Your task to perform on an android device: Show me recent news Image 0: 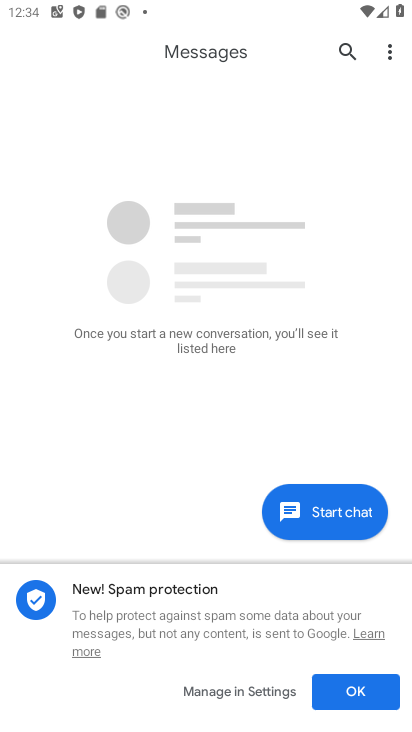
Step 0: press home button
Your task to perform on an android device: Show me recent news Image 1: 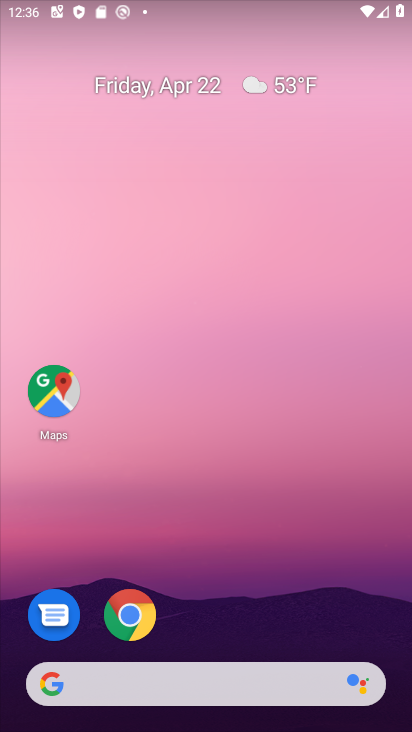
Step 1: click (215, 686)
Your task to perform on an android device: Show me recent news Image 2: 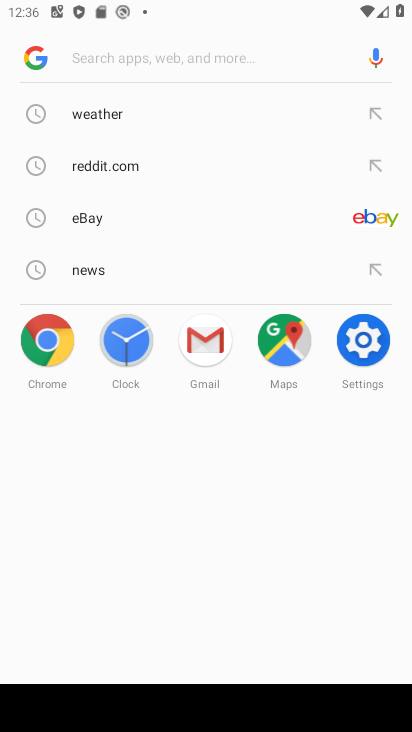
Step 2: type "recent news"
Your task to perform on an android device: Show me recent news Image 3: 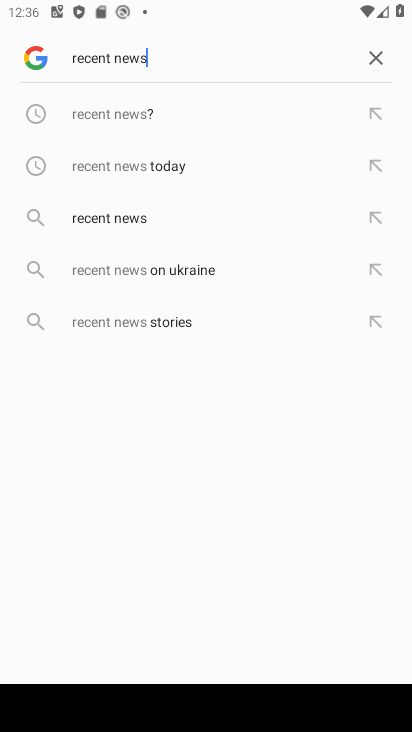
Step 3: click (230, 116)
Your task to perform on an android device: Show me recent news Image 4: 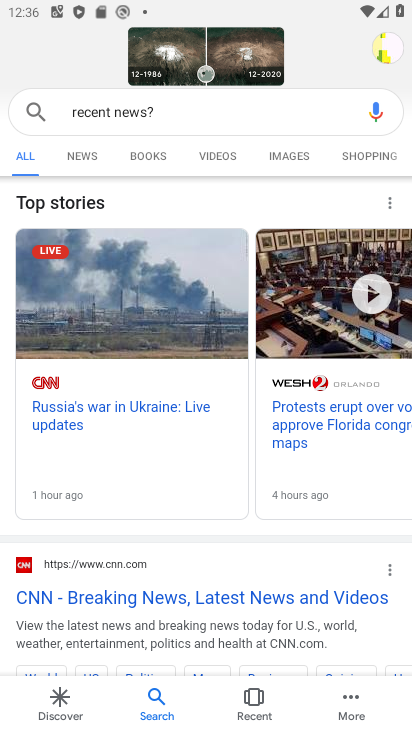
Step 4: task complete